Your task to perform on an android device: Open Youtube and go to the subscriptions tab Image 0: 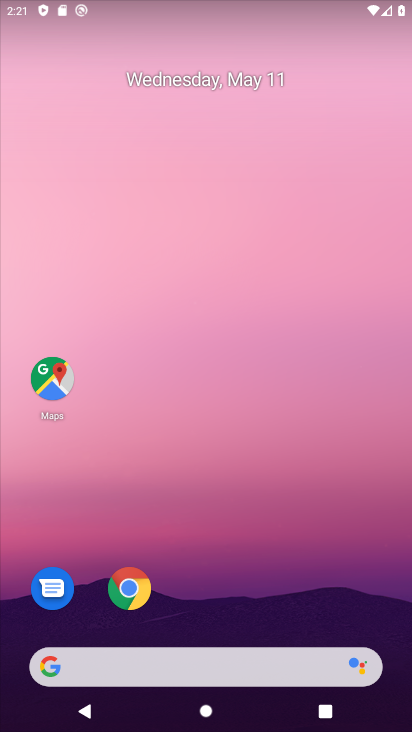
Step 0: drag from (238, 587) to (240, 95)
Your task to perform on an android device: Open Youtube and go to the subscriptions tab Image 1: 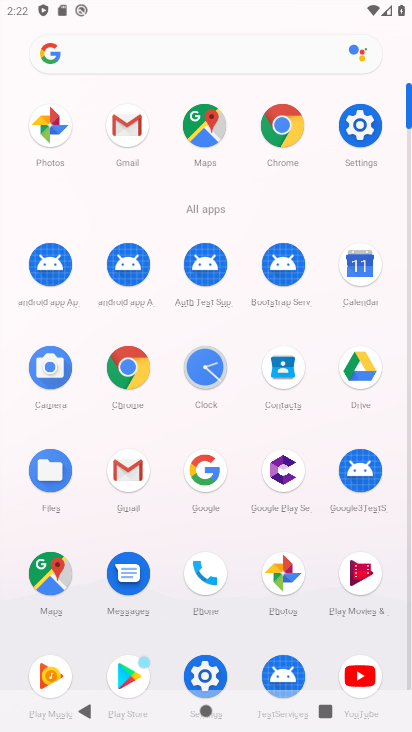
Step 1: click (356, 670)
Your task to perform on an android device: Open Youtube and go to the subscriptions tab Image 2: 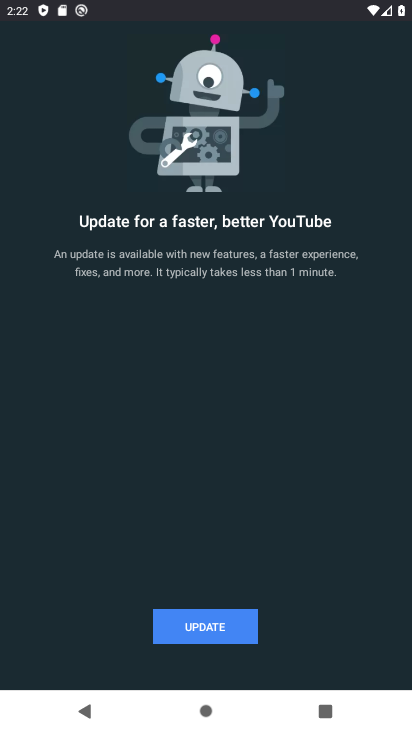
Step 2: click (230, 628)
Your task to perform on an android device: Open Youtube and go to the subscriptions tab Image 3: 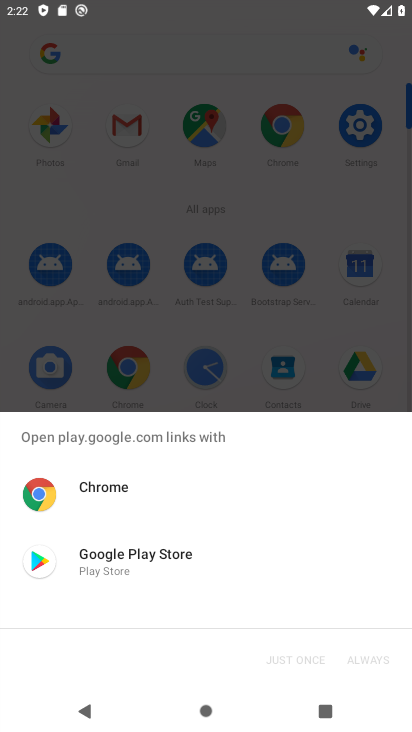
Step 3: click (133, 556)
Your task to perform on an android device: Open Youtube and go to the subscriptions tab Image 4: 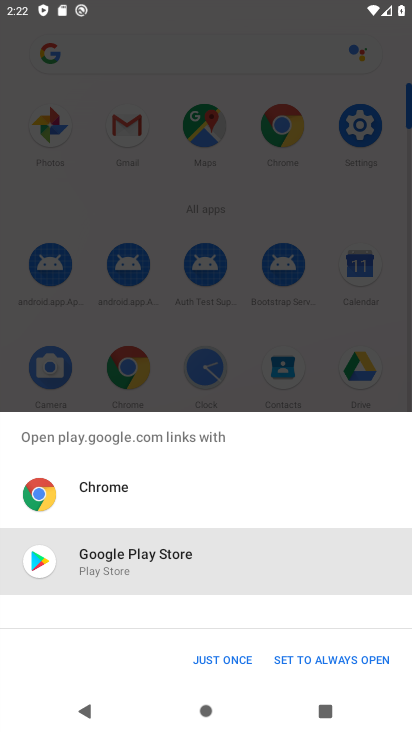
Step 4: click (237, 663)
Your task to perform on an android device: Open Youtube and go to the subscriptions tab Image 5: 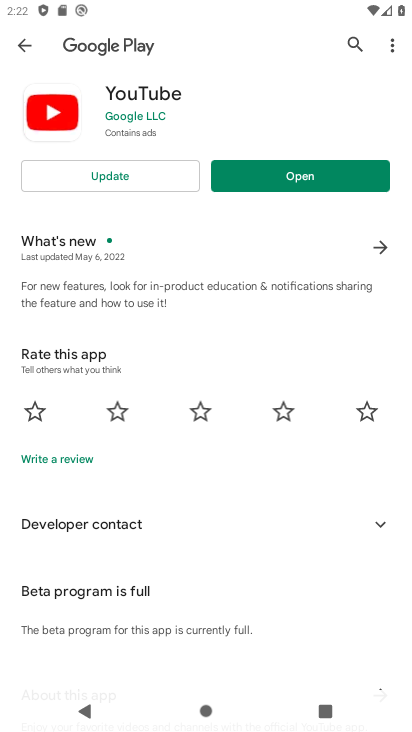
Step 5: click (140, 179)
Your task to perform on an android device: Open Youtube and go to the subscriptions tab Image 6: 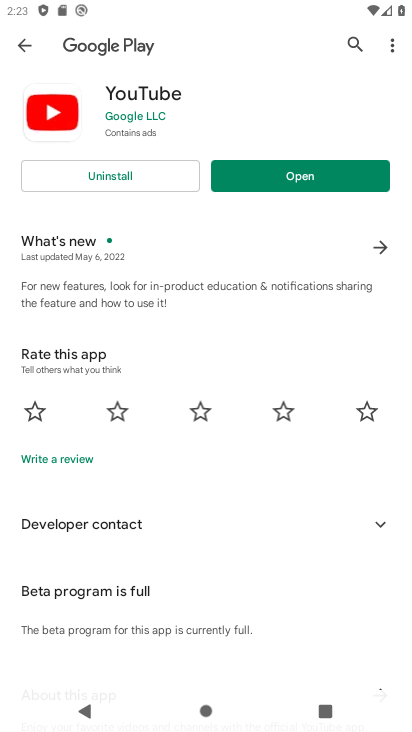
Step 6: click (296, 169)
Your task to perform on an android device: Open Youtube and go to the subscriptions tab Image 7: 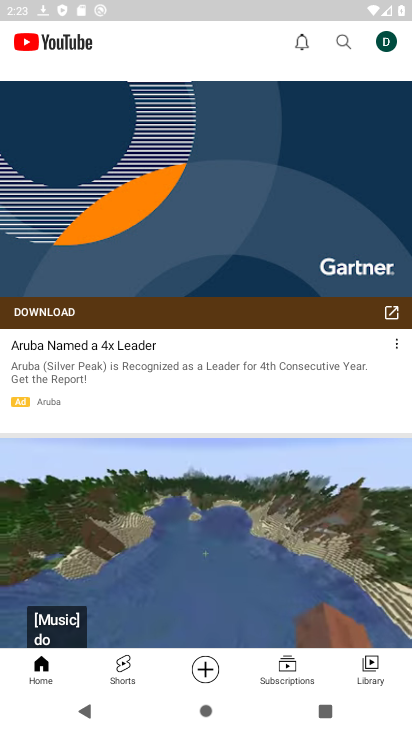
Step 7: drag from (236, 535) to (179, 230)
Your task to perform on an android device: Open Youtube and go to the subscriptions tab Image 8: 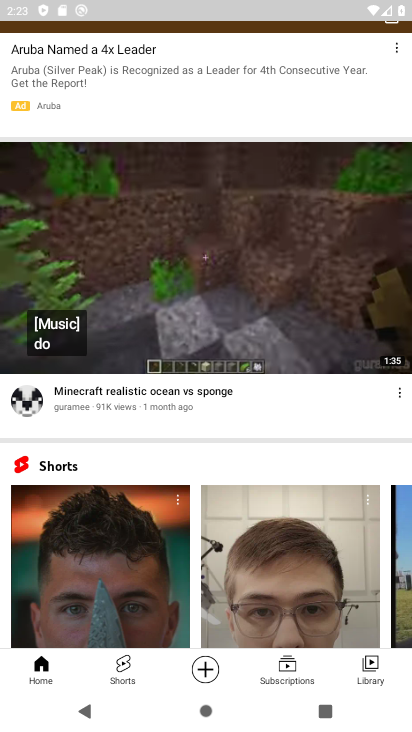
Step 8: click (274, 660)
Your task to perform on an android device: Open Youtube and go to the subscriptions tab Image 9: 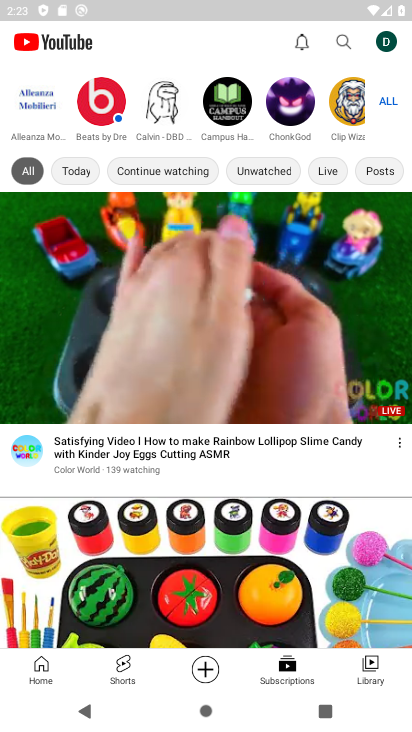
Step 9: task complete